Your task to perform on an android device: Empty the shopping cart on amazon. Search for "macbook pro 13 inch" on amazon, select the first entry, and add it to the cart. Image 0: 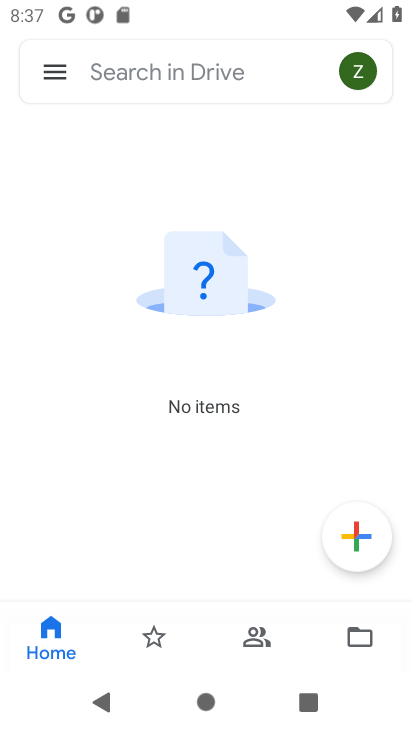
Step 0: press home button
Your task to perform on an android device: Empty the shopping cart on amazon. Search for "macbook pro 13 inch" on amazon, select the first entry, and add it to the cart. Image 1: 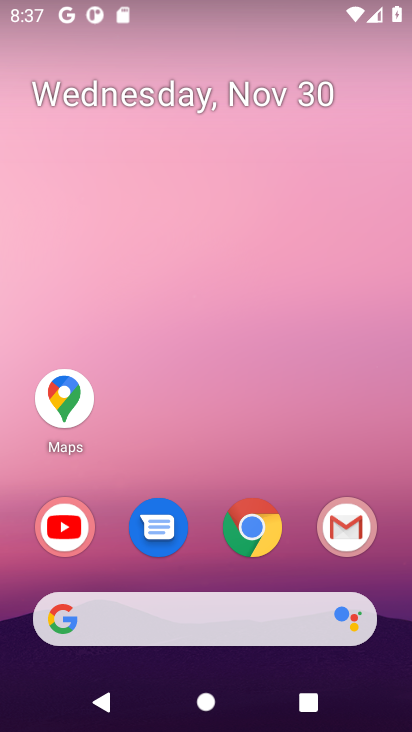
Step 1: click (259, 522)
Your task to perform on an android device: Empty the shopping cart on amazon. Search for "macbook pro 13 inch" on amazon, select the first entry, and add it to the cart. Image 2: 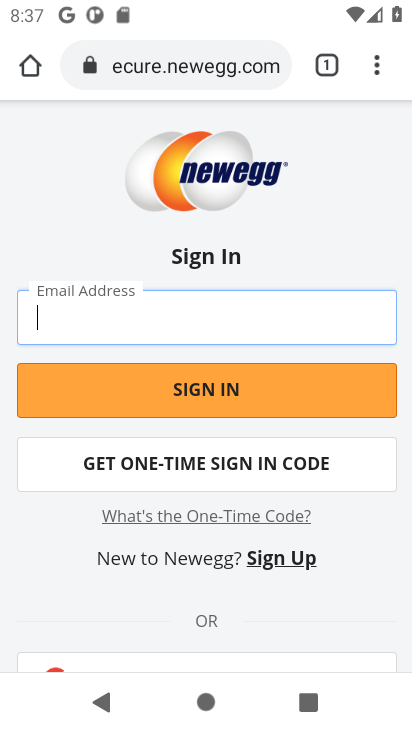
Step 2: click (228, 64)
Your task to perform on an android device: Empty the shopping cart on amazon. Search for "macbook pro 13 inch" on amazon, select the first entry, and add it to the cart. Image 3: 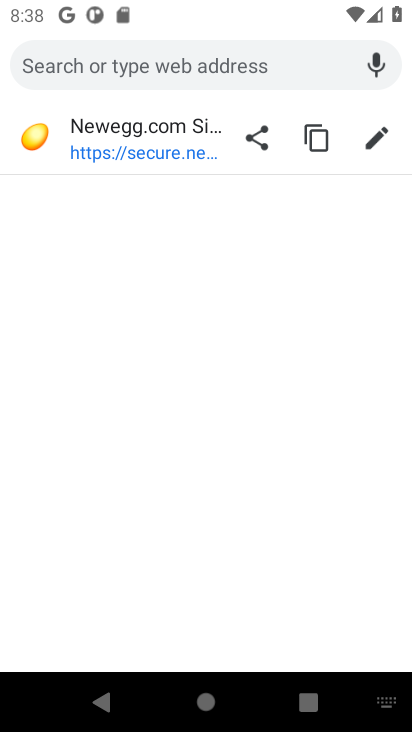
Step 3: type "amazon"
Your task to perform on an android device: Empty the shopping cart on amazon. Search for "macbook pro 13 inch" on amazon, select the first entry, and add it to the cart. Image 4: 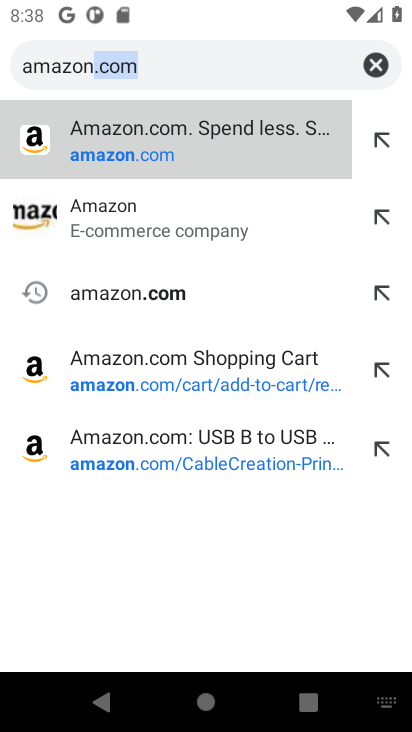
Step 4: press enter
Your task to perform on an android device: Empty the shopping cart on amazon. Search for "macbook pro 13 inch" on amazon, select the first entry, and add it to the cart. Image 5: 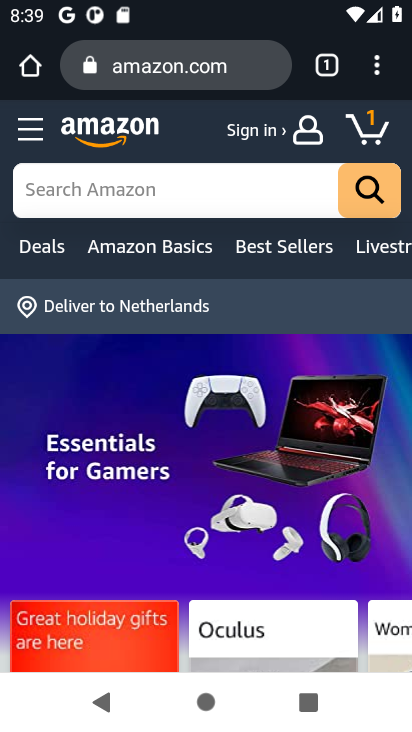
Step 5: click (180, 179)
Your task to perform on an android device: Empty the shopping cart on amazon. Search for "macbook pro 13 inch" on amazon, select the first entry, and add it to the cart. Image 6: 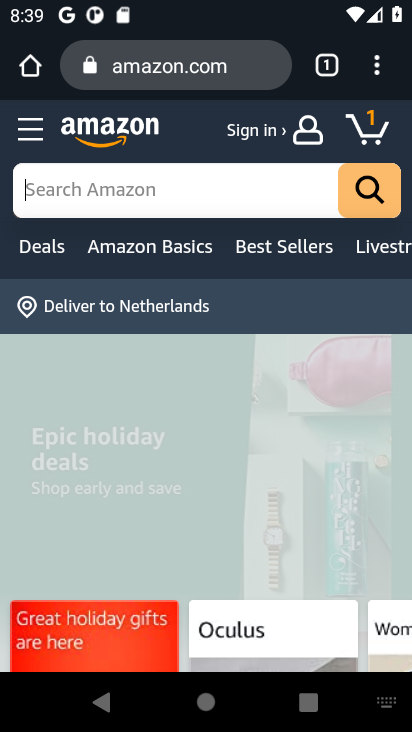
Step 6: type "macbook pro 13 inch"
Your task to perform on an android device: Empty the shopping cart on amazon. Search for "macbook pro 13 inch" on amazon, select the first entry, and add it to the cart. Image 7: 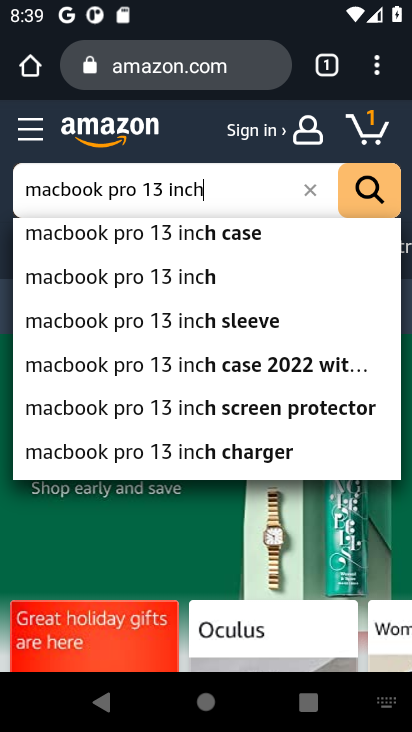
Step 7: press enter
Your task to perform on an android device: Empty the shopping cart on amazon. Search for "macbook pro 13 inch" on amazon, select the first entry, and add it to the cart. Image 8: 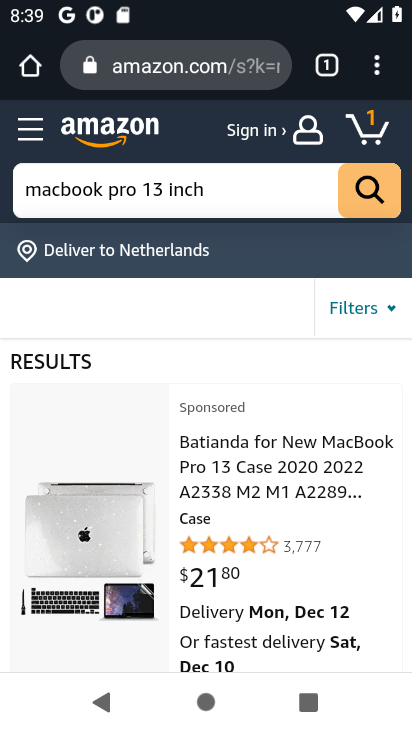
Step 8: click (116, 521)
Your task to perform on an android device: Empty the shopping cart on amazon. Search for "macbook pro 13 inch" on amazon, select the first entry, and add it to the cart. Image 9: 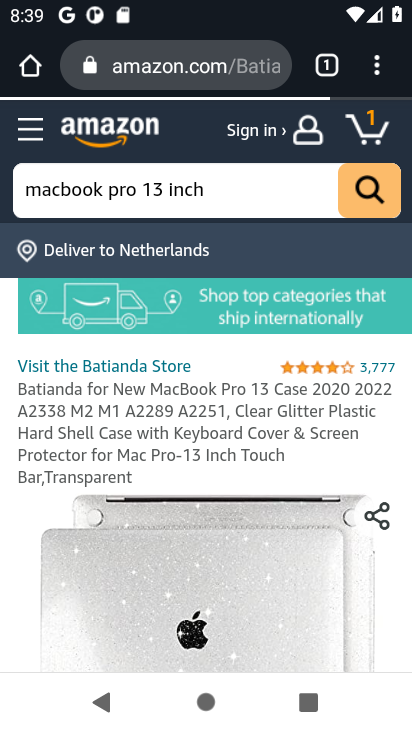
Step 9: drag from (262, 574) to (317, 142)
Your task to perform on an android device: Empty the shopping cart on amazon. Search for "macbook pro 13 inch" on amazon, select the first entry, and add it to the cart. Image 10: 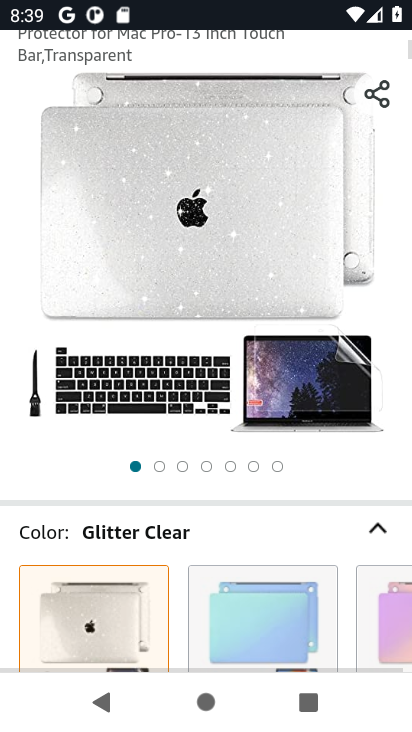
Step 10: drag from (304, 427) to (319, 173)
Your task to perform on an android device: Empty the shopping cart on amazon. Search for "macbook pro 13 inch" on amazon, select the first entry, and add it to the cart. Image 11: 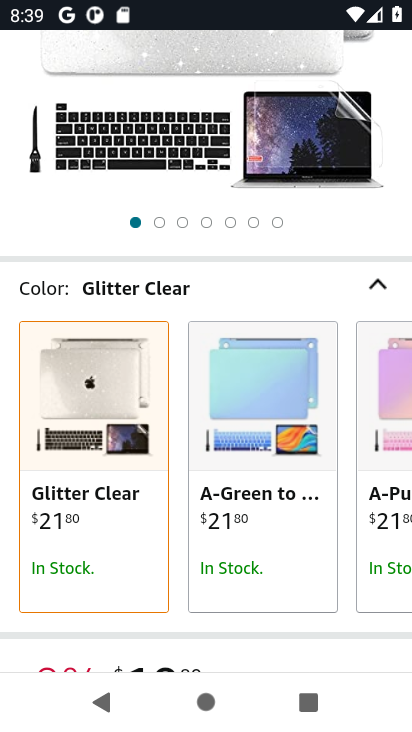
Step 11: drag from (350, 611) to (364, 123)
Your task to perform on an android device: Empty the shopping cart on amazon. Search for "macbook pro 13 inch" on amazon, select the first entry, and add it to the cart. Image 12: 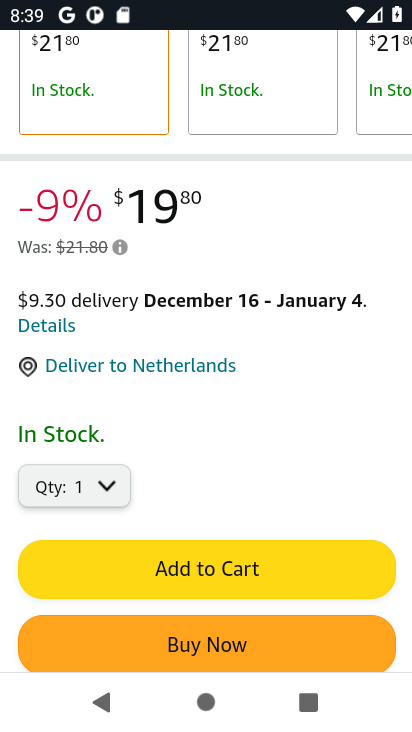
Step 12: click (235, 563)
Your task to perform on an android device: Empty the shopping cart on amazon. Search for "macbook pro 13 inch" on amazon, select the first entry, and add it to the cart. Image 13: 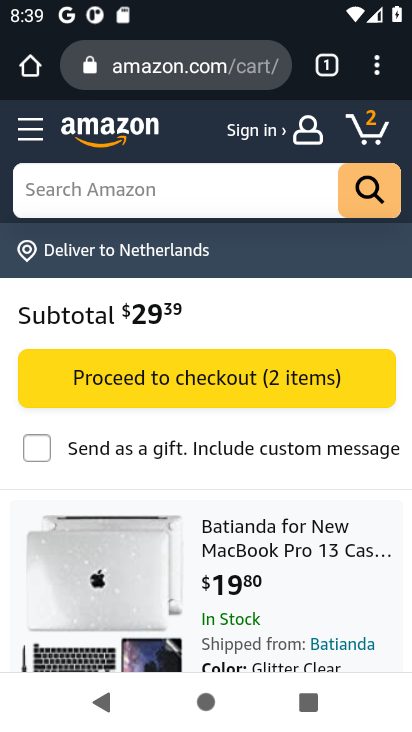
Step 13: task complete